Your task to perform on an android device: turn on the 24-hour format for clock Image 0: 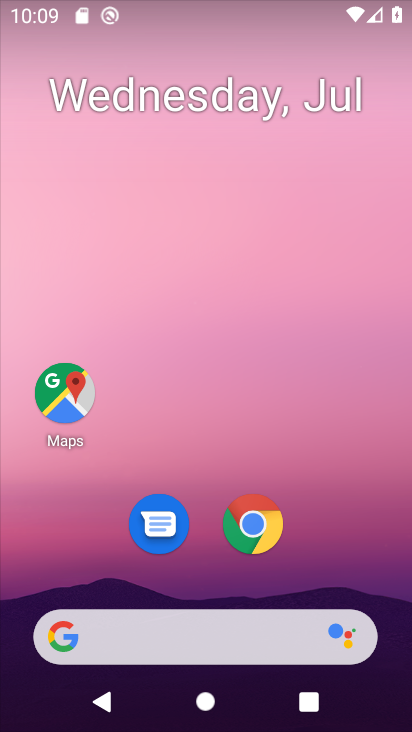
Step 0: drag from (316, 556) to (355, 9)
Your task to perform on an android device: turn on the 24-hour format for clock Image 1: 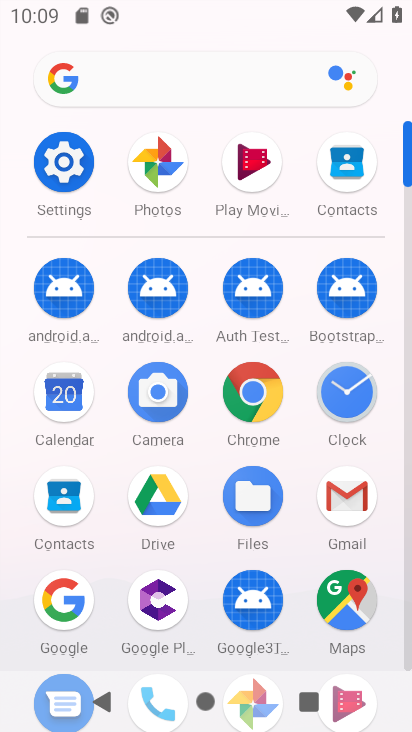
Step 1: click (341, 396)
Your task to perform on an android device: turn on the 24-hour format for clock Image 2: 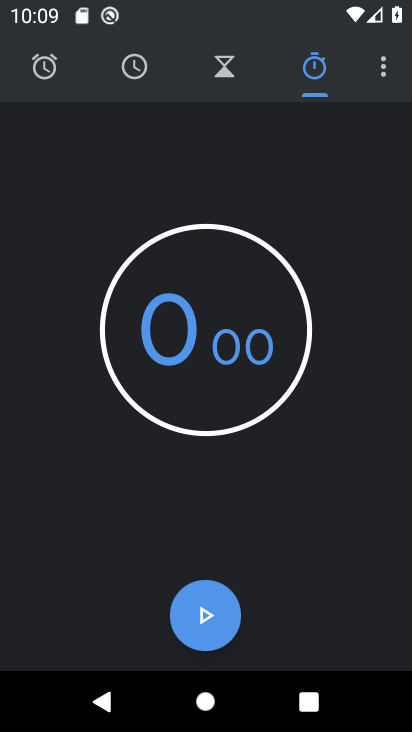
Step 2: click (385, 73)
Your task to perform on an android device: turn on the 24-hour format for clock Image 3: 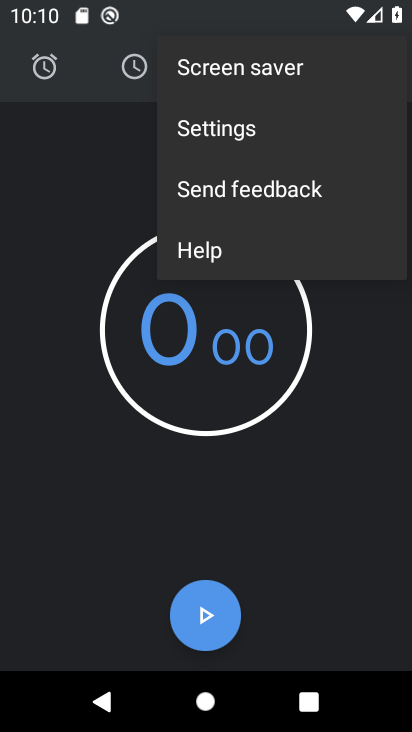
Step 3: click (248, 129)
Your task to perform on an android device: turn on the 24-hour format for clock Image 4: 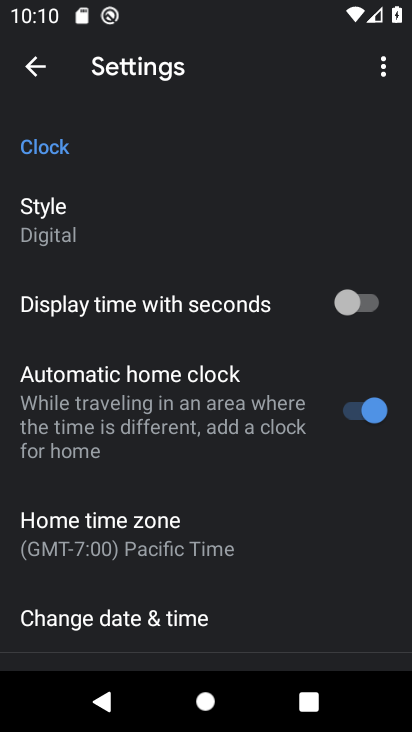
Step 4: click (243, 625)
Your task to perform on an android device: turn on the 24-hour format for clock Image 5: 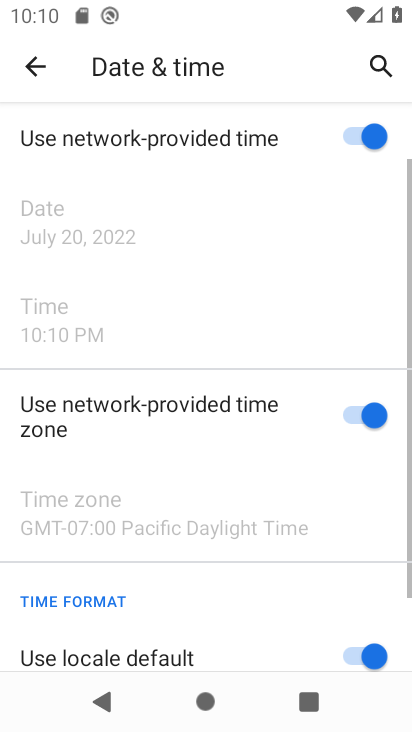
Step 5: drag from (238, 501) to (273, 255)
Your task to perform on an android device: turn on the 24-hour format for clock Image 6: 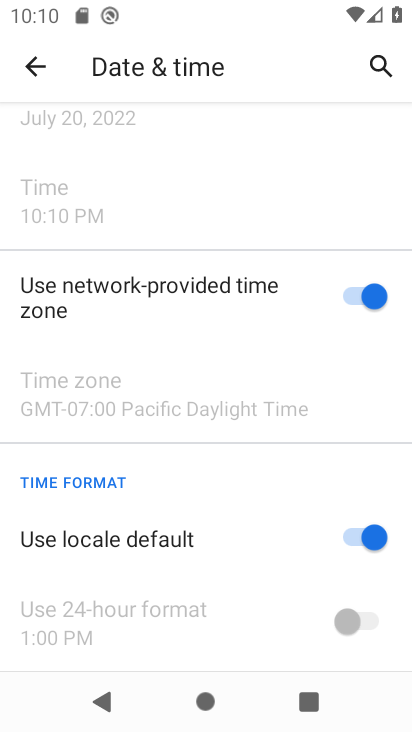
Step 6: click (365, 538)
Your task to perform on an android device: turn on the 24-hour format for clock Image 7: 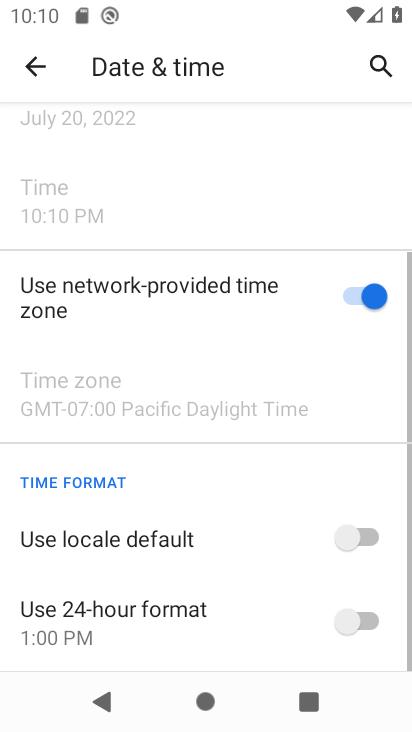
Step 7: click (368, 617)
Your task to perform on an android device: turn on the 24-hour format for clock Image 8: 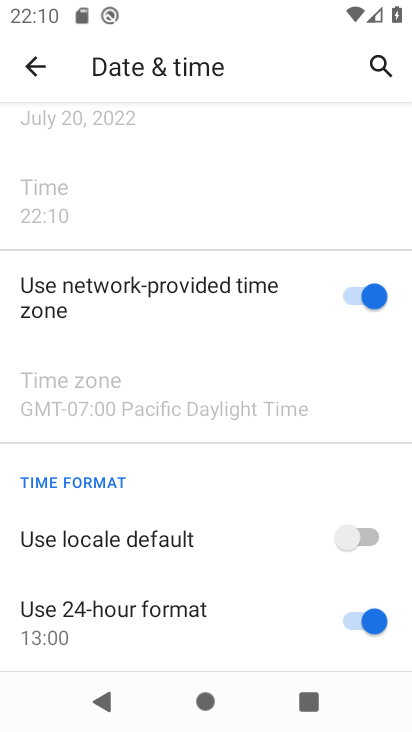
Step 8: task complete